Your task to perform on an android device: Open settings Image 0: 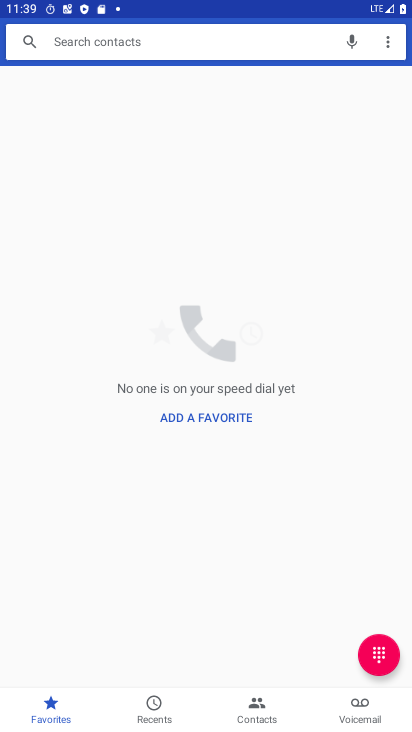
Step 0: press home button
Your task to perform on an android device: Open settings Image 1: 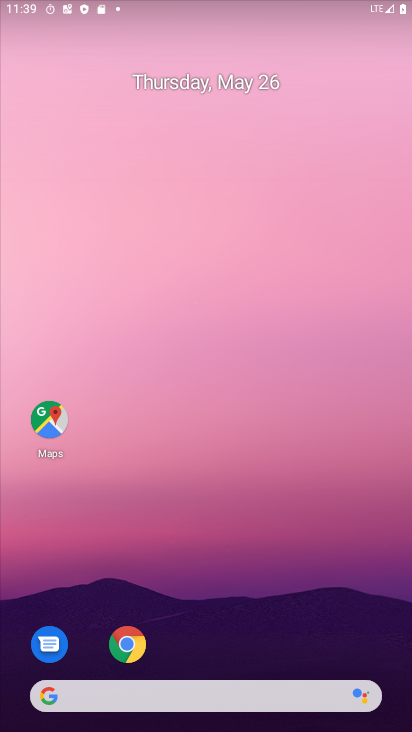
Step 1: drag from (135, 719) to (160, 156)
Your task to perform on an android device: Open settings Image 2: 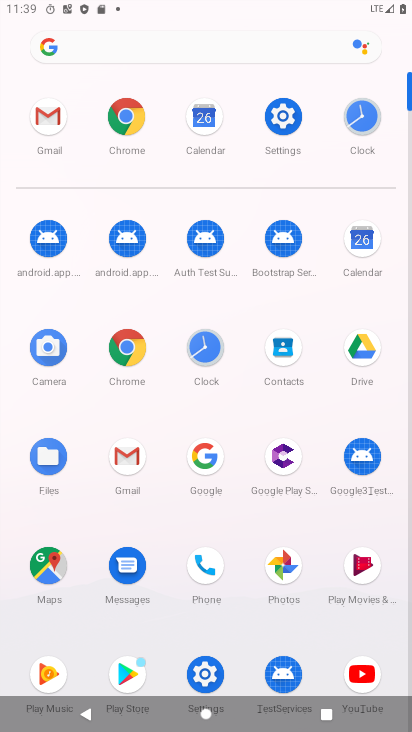
Step 2: click (286, 127)
Your task to perform on an android device: Open settings Image 3: 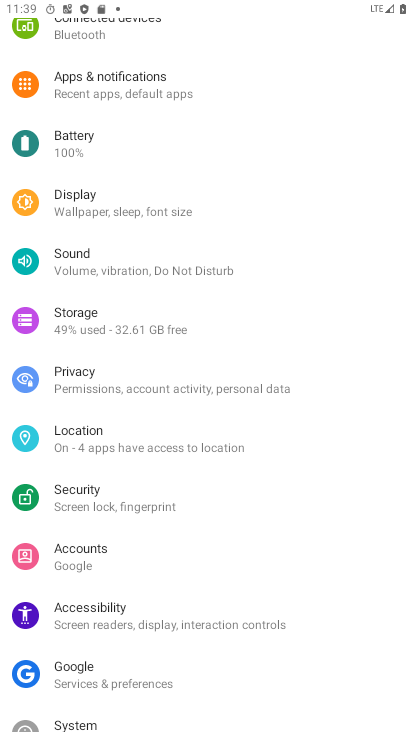
Step 3: task complete